Your task to perform on an android device: set default search engine in the chrome app Image 0: 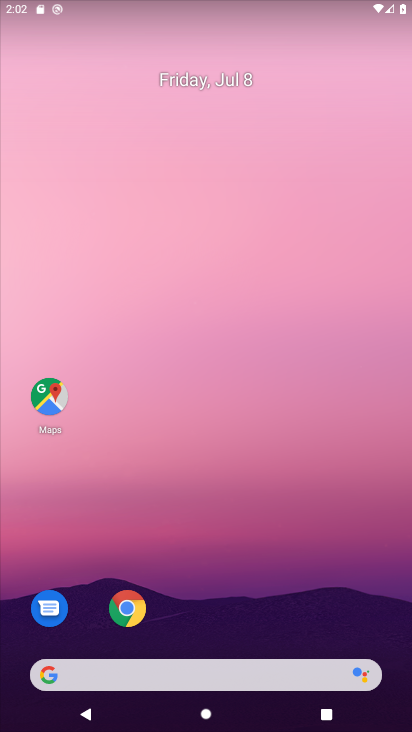
Step 0: drag from (261, 699) to (319, 5)
Your task to perform on an android device: set default search engine in the chrome app Image 1: 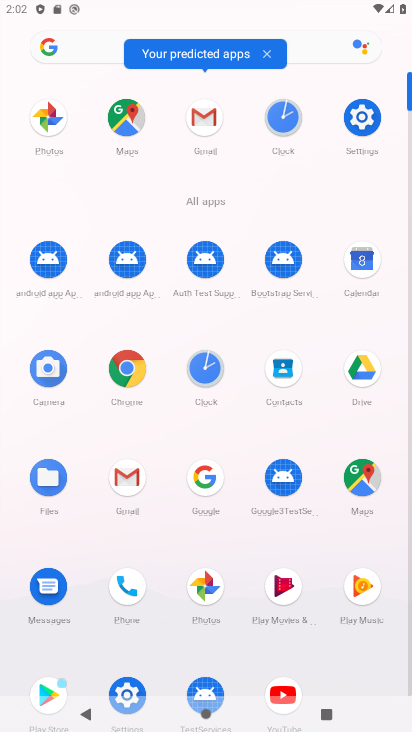
Step 1: click (134, 372)
Your task to perform on an android device: set default search engine in the chrome app Image 2: 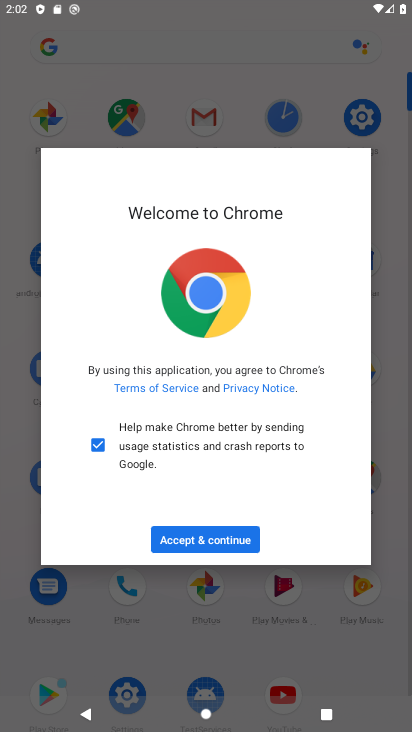
Step 2: click (197, 547)
Your task to perform on an android device: set default search engine in the chrome app Image 3: 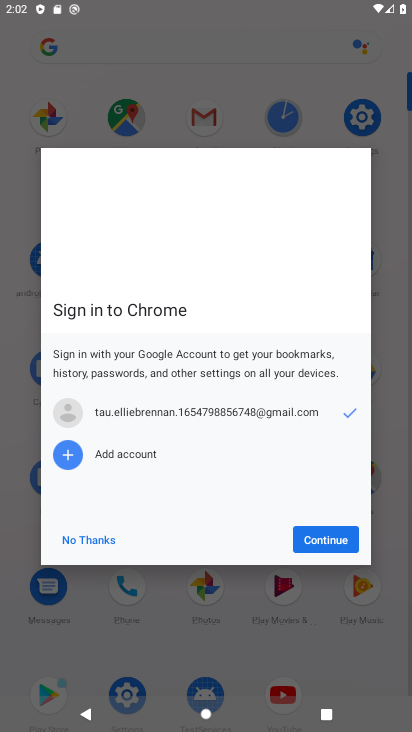
Step 3: click (100, 542)
Your task to perform on an android device: set default search engine in the chrome app Image 4: 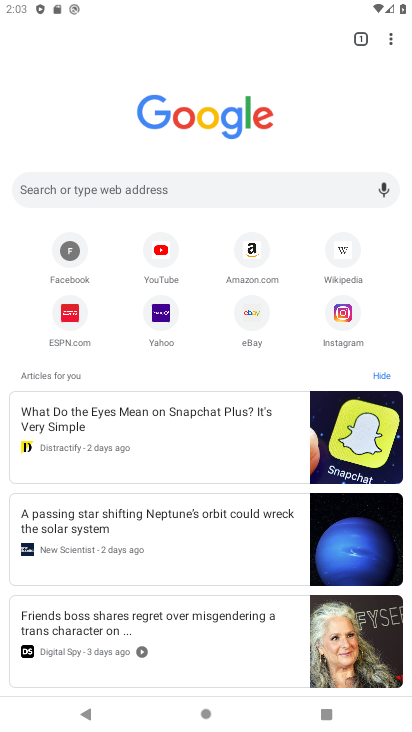
Step 4: drag from (387, 33) to (261, 322)
Your task to perform on an android device: set default search engine in the chrome app Image 5: 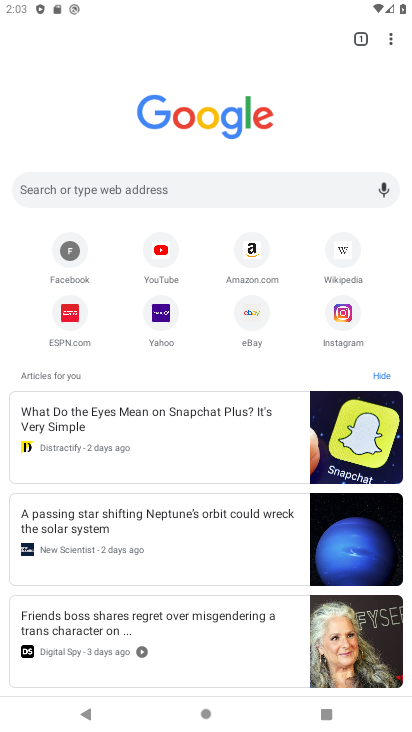
Step 5: click (261, 322)
Your task to perform on an android device: set default search engine in the chrome app Image 6: 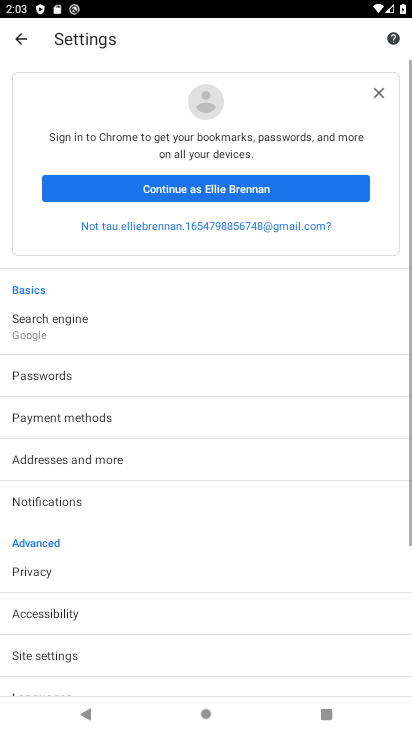
Step 6: click (89, 316)
Your task to perform on an android device: set default search engine in the chrome app Image 7: 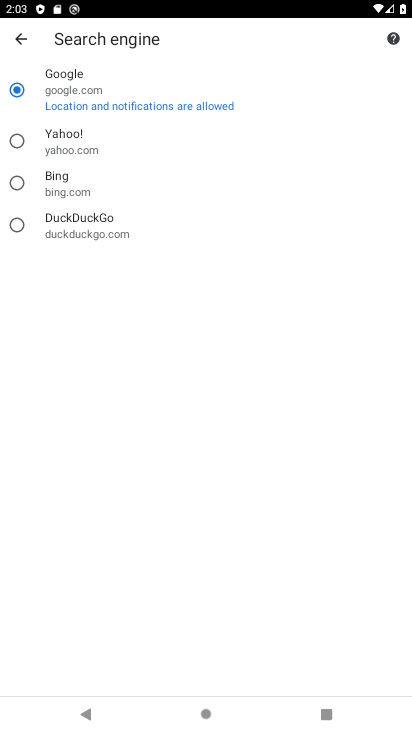
Step 7: task complete